Your task to perform on an android device: Search for Italian restaurants on Maps Image 0: 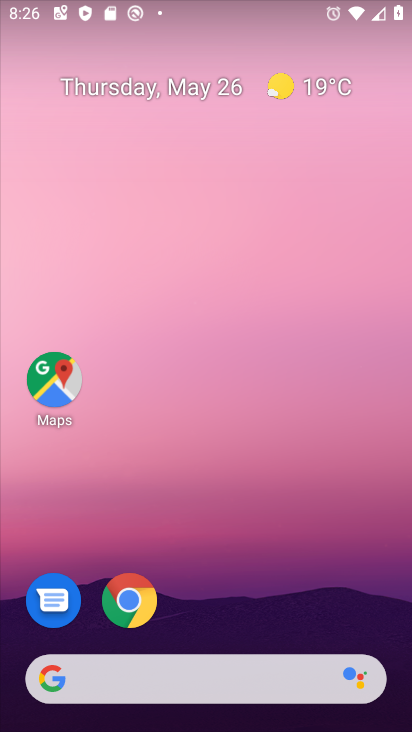
Step 0: press home button
Your task to perform on an android device: Search for Italian restaurants on Maps Image 1: 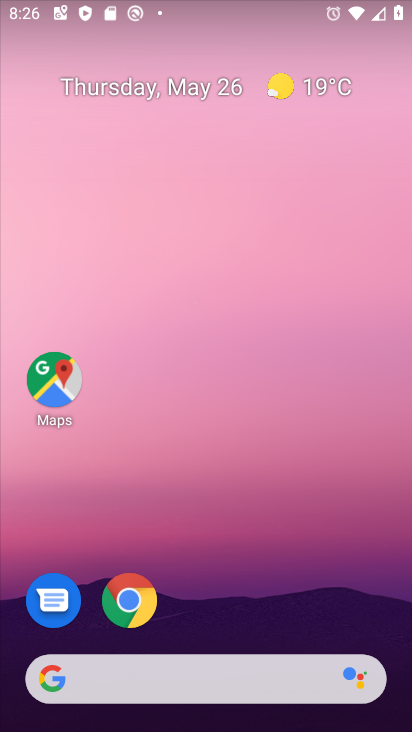
Step 1: click (46, 394)
Your task to perform on an android device: Search for Italian restaurants on Maps Image 2: 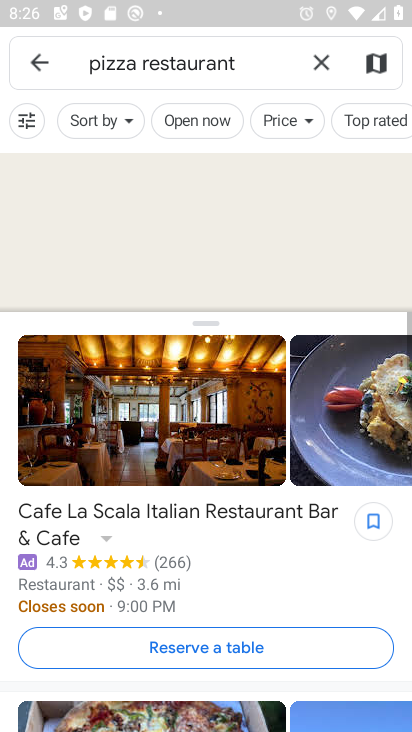
Step 2: click (323, 66)
Your task to perform on an android device: Search for Italian restaurants on Maps Image 3: 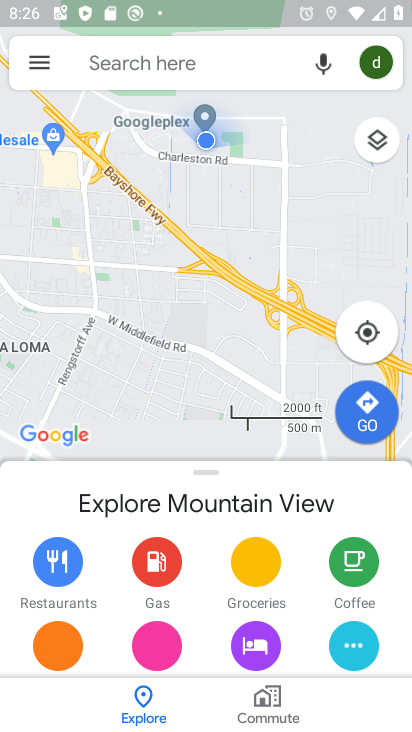
Step 3: click (155, 58)
Your task to perform on an android device: Search for Italian restaurants on Maps Image 4: 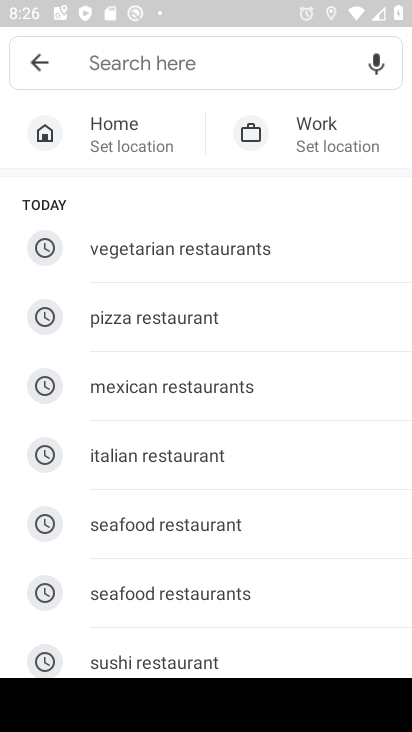
Step 4: click (160, 450)
Your task to perform on an android device: Search for Italian restaurants on Maps Image 5: 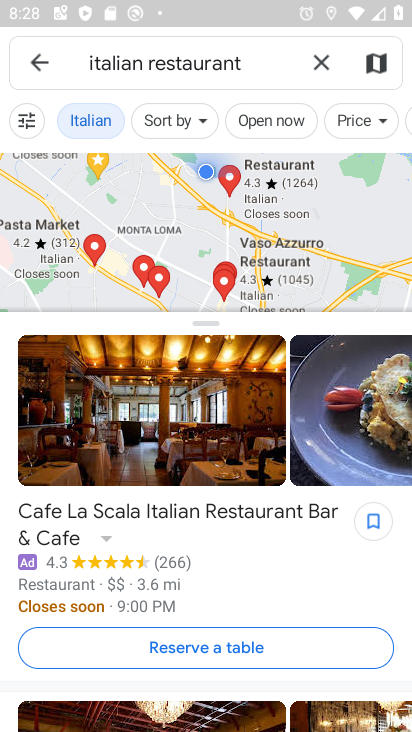
Step 5: task complete